Your task to perform on an android device: toggle notifications settings in the gmail app Image 0: 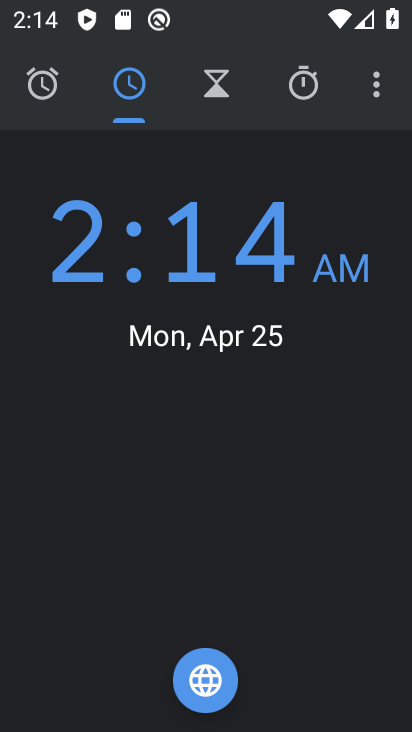
Step 0: press home button
Your task to perform on an android device: toggle notifications settings in the gmail app Image 1: 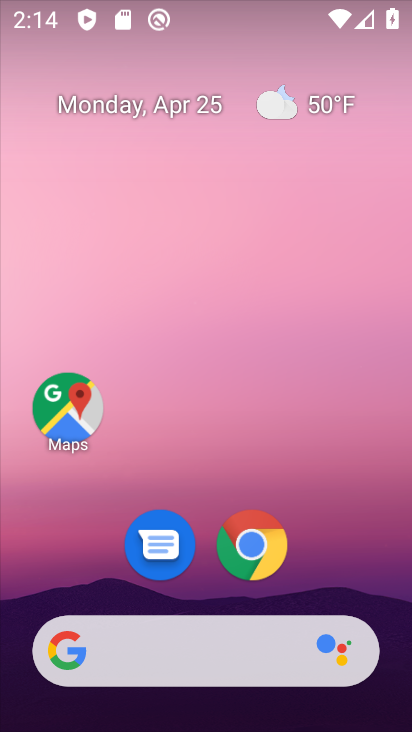
Step 1: drag from (347, 555) to (247, 45)
Your task to perform on an android device: toggle notifications settings in the gmail app Image 2: 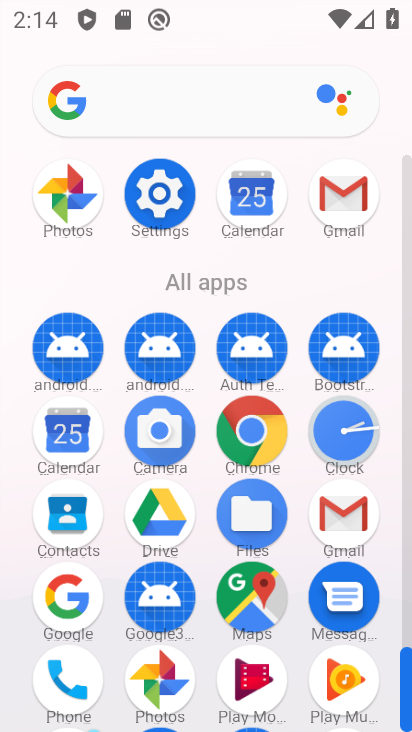
Step 2: click (340, 184)
Your task to perform on an android device: toggle notifications settings in the gmail app Image 3: 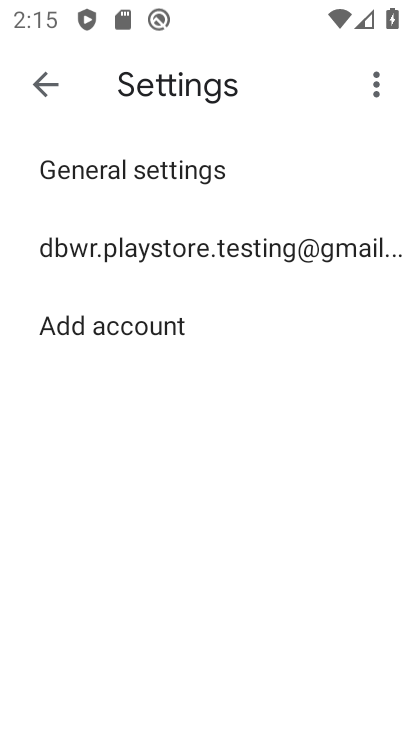
Step 3: click (295, 251)
Your task to perform on an android device: toggle notifications settings in the gmail app Image 4: 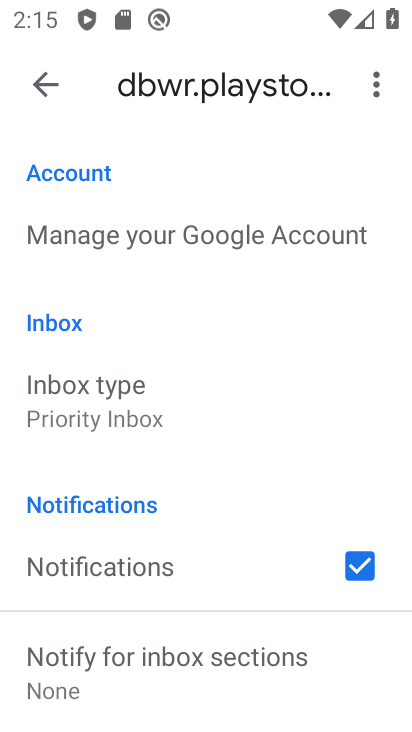
Step 4: drag from (245, 610) to (221, 204)
Your task to perform on an android device: toggle notifications settings in the gmail app Image 5: 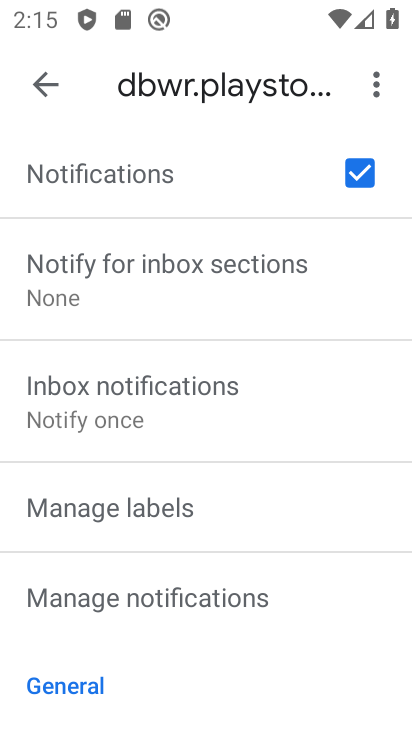
Step 5: click (187, 598)
Your task to perform on an android device: toggle notifications settings in the gmail app Image 6: 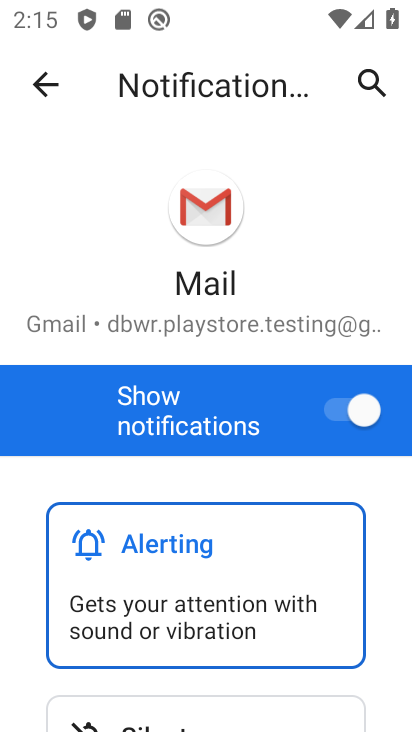
Step 6: click (363, 401)
Your task to perform on an android device: toggle notifications settings in the gmail app Image 7: 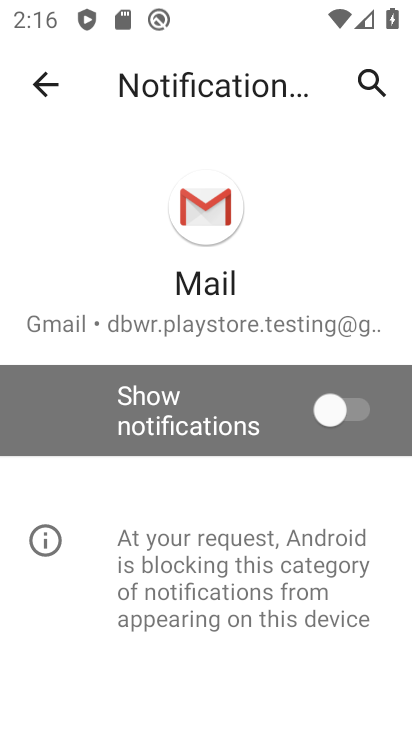
Step 7: task complete